Your task to perform on an android device: Open the Play Movies app and select the watchlist tab. Image 0: 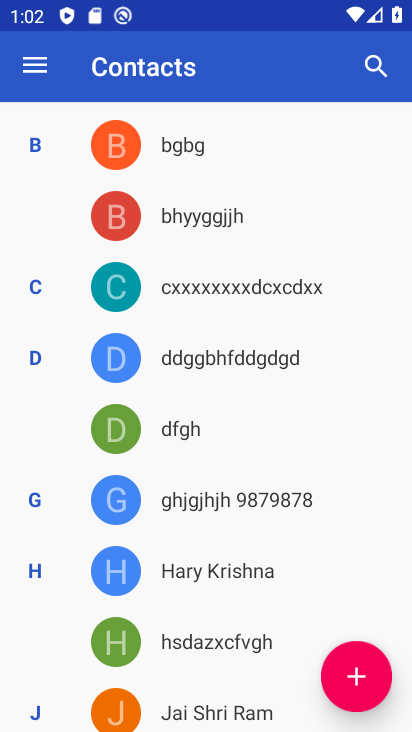
Step 0: press home button
Your task to perform on an android device: Open the Play Movies app and select the watchlist tab. Image 1: 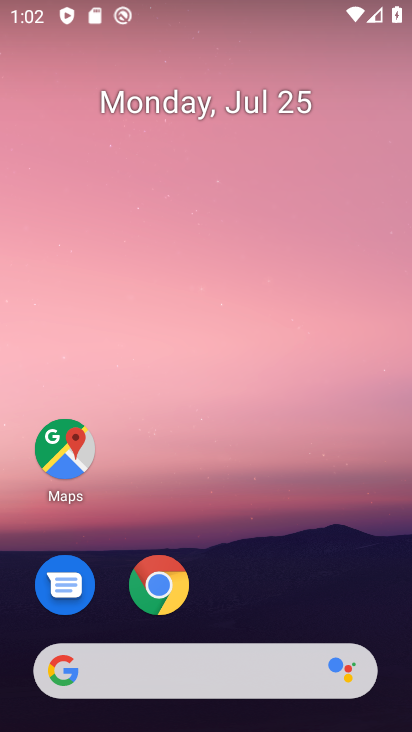
Step 1: drag from (191, 664) to (180, 217)
Your task to perform on an android device: Open the Play Movies app and select the watchlist tab. Image 2: 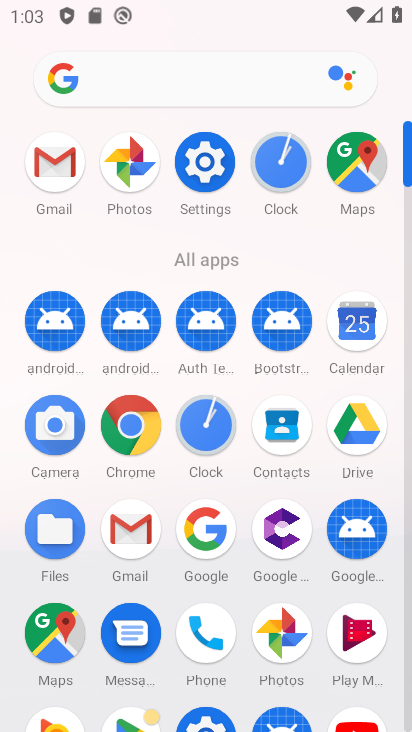
Step 2: click (351, 624)
Your task to perform on an android device: Open the Play Movies app and select the watchlist tab. Image 3: 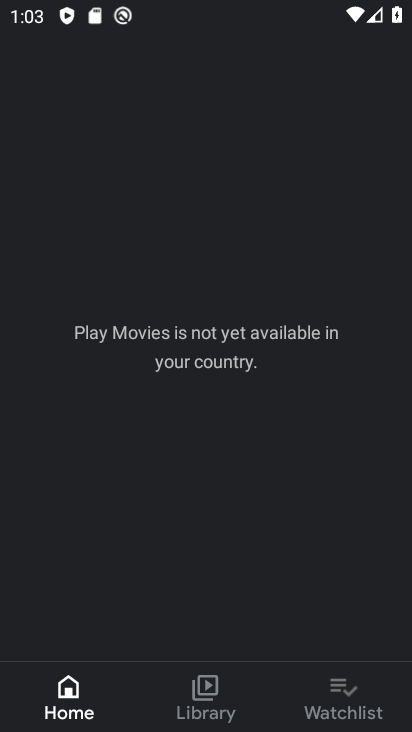
Step 3: click (348, 691)
Your task to perform on an android device: Open the Play Movies app and select the watchlist tab. Image 4: 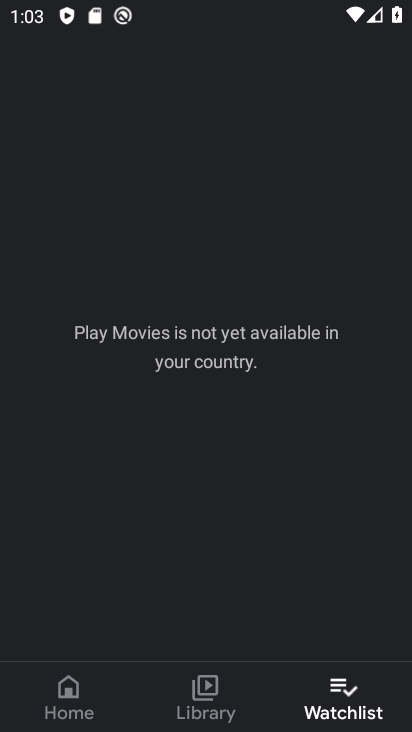
Step 4: task complete